Your task to perform on an android device: turn on showing notifications on the lock screen Image 0: 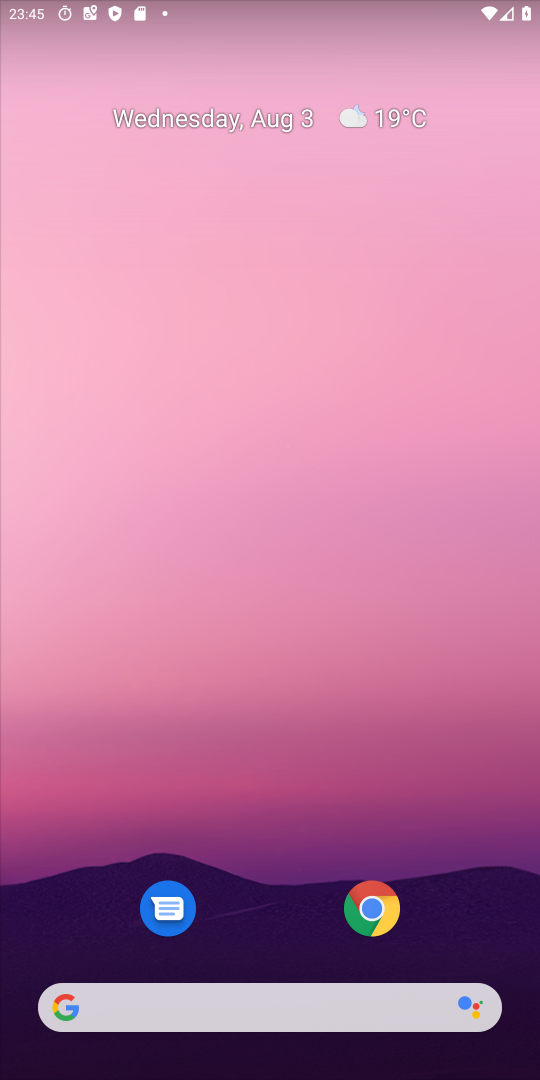
Step 0: press home button
Your task to perform on an android device: turn on showing notifications on the lock screen Image 1: 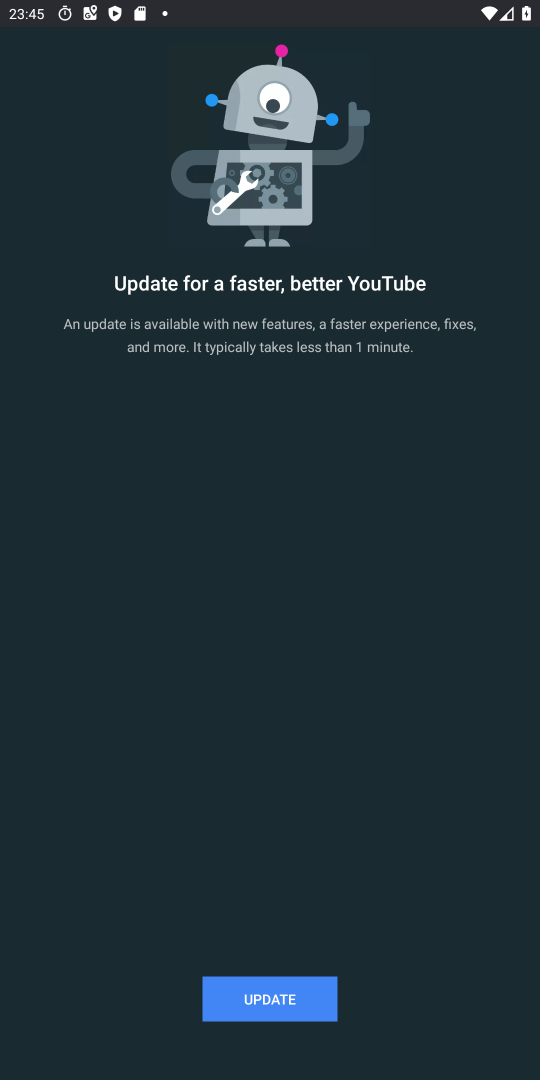
Step 1: drag from (314, 1019) to (429, 314)
Your task to perform on an android device: turn on showing notifications on the lock screen Image 2: 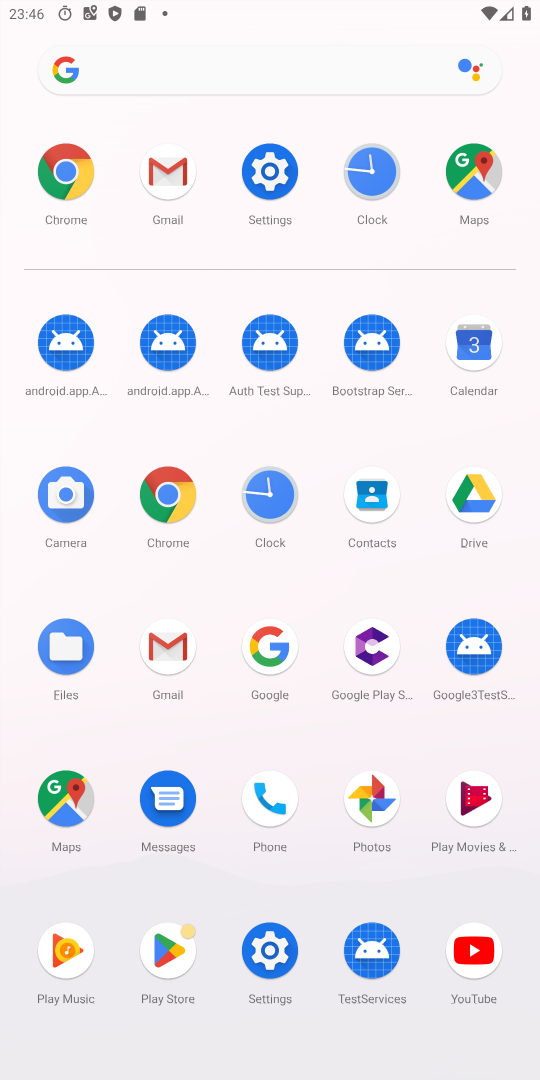
Step 2: click (265, 179)
Your task to perform on an android device: turn on showing notifications on the lock screen Image 3: 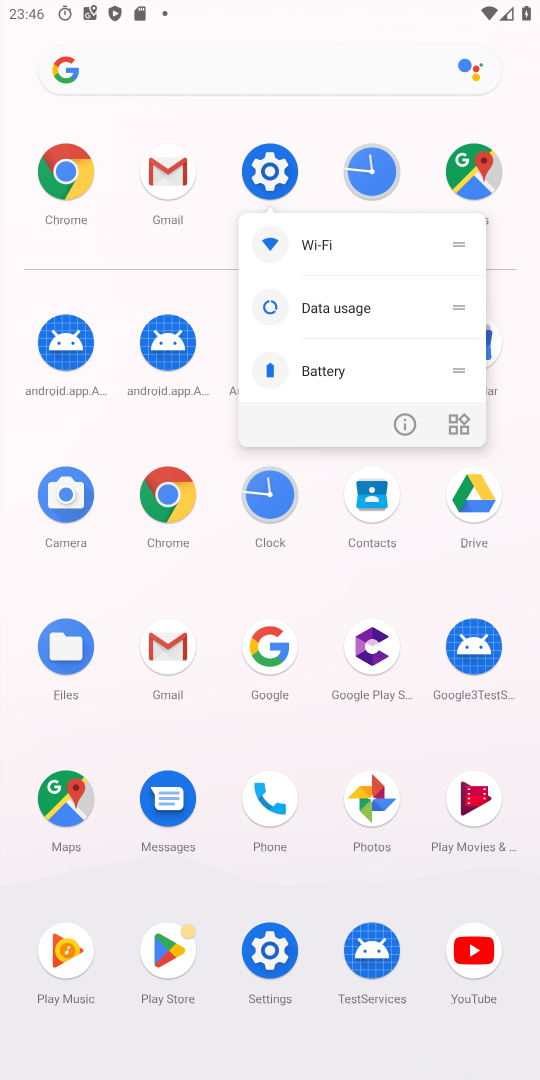
Step 3: click (260, 180)
Your task to perform on an android device: turn on showing notifications on the lock screen Image 4: 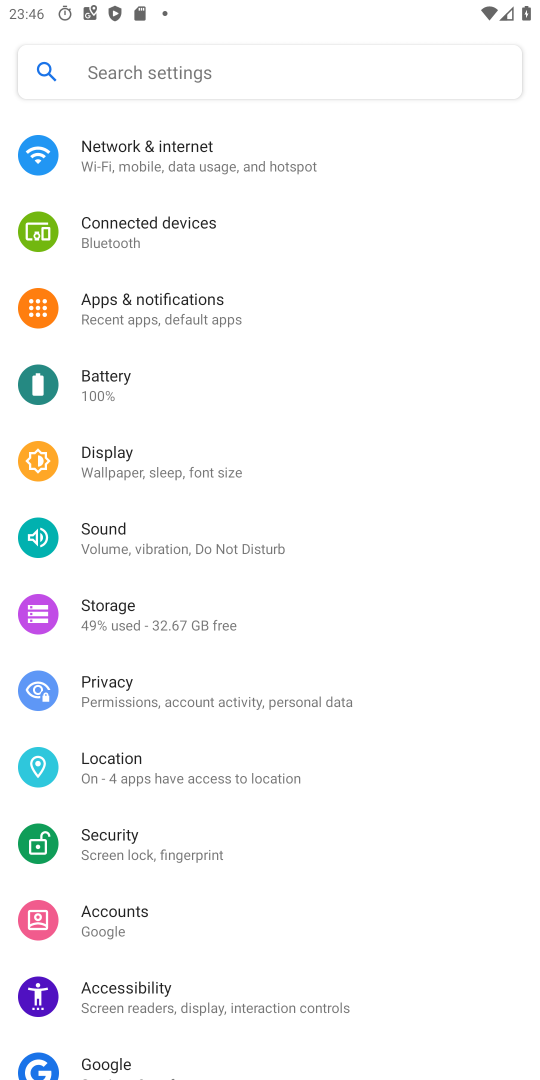
Step 4: click (260, 178)
Your task to perform on an android device: turn on showing notifications on the lock screen Image 5: 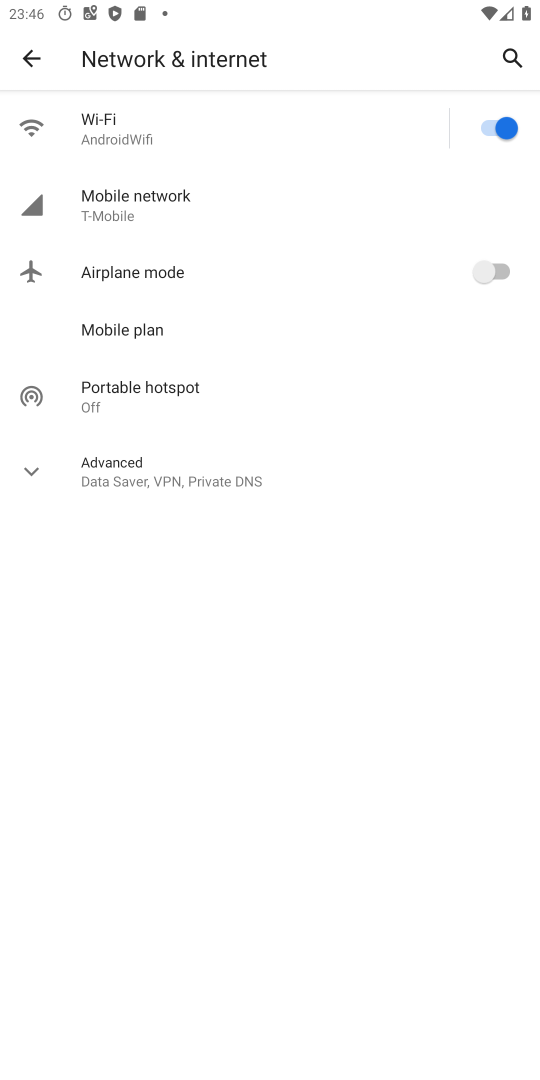
Step 5: click (37, 77)
Your task to perform on an android device: turn on showing notifications on the lock screen Image 6: 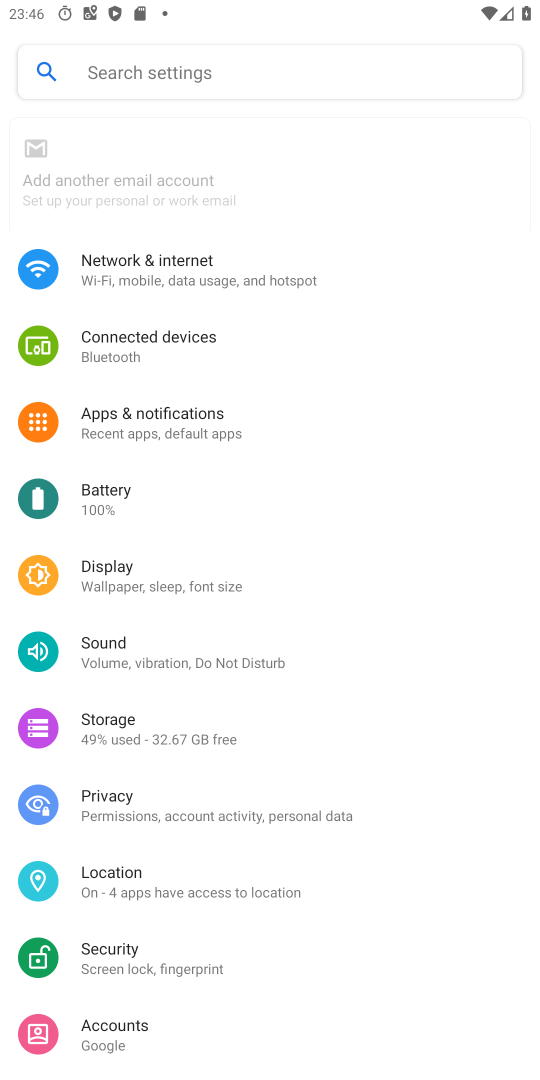
Step 6: click (239, 73)
Your task to perform on an android device: turn on showing notifications on the lock screen Image 7: 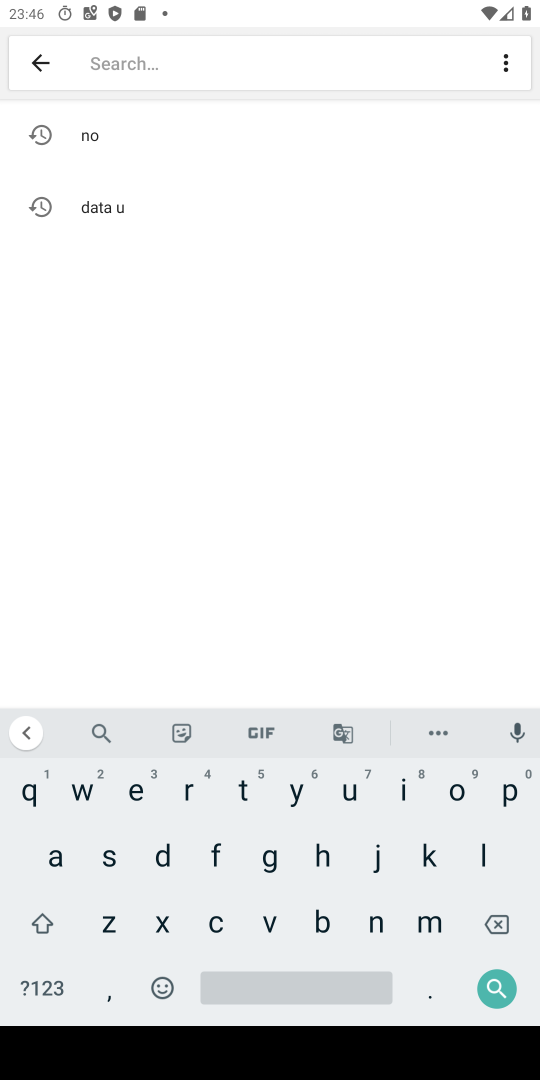
Step 7: click (382, 912)
Your task to perform on an android device: turn on showing notifications on the lock screen Image 8: 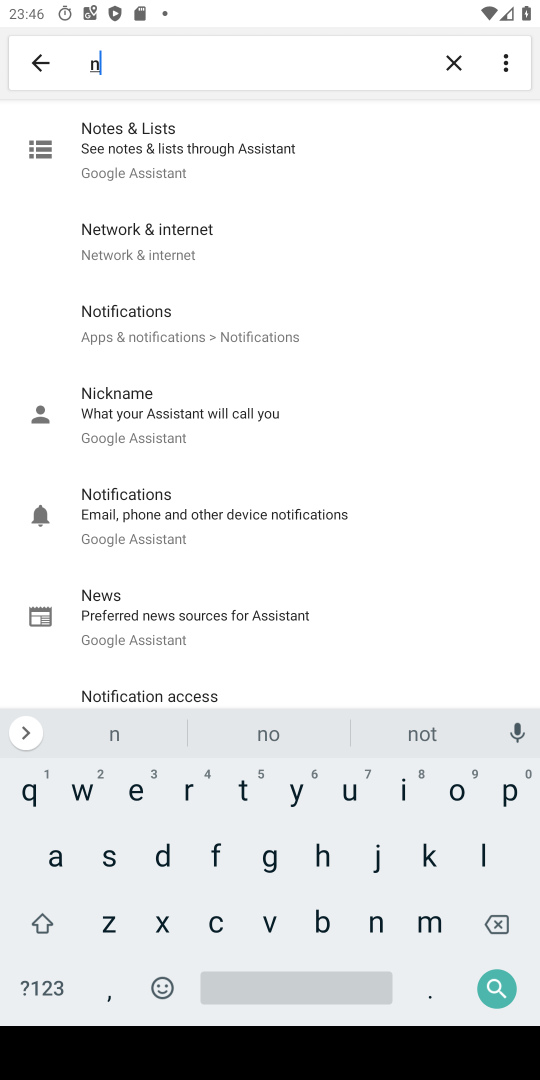
Step 8: click (465, 787)
Your task to perform on an android device: turn on showing notifications on the lock screen Image 9: 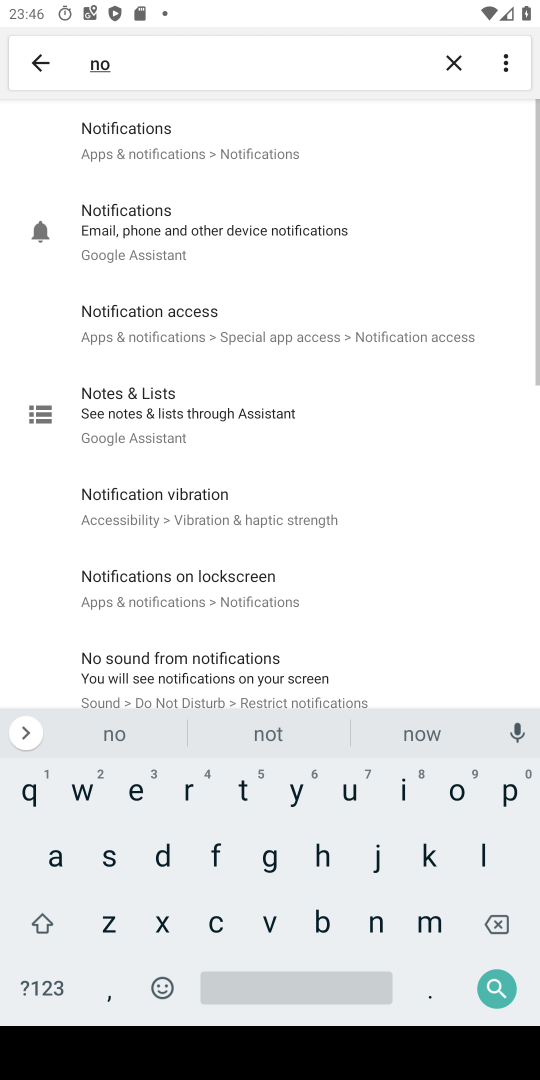
Step 9: click (216, 160)
Your task to perform on an android device: turn on showing notifications on the lock screen Image 10: 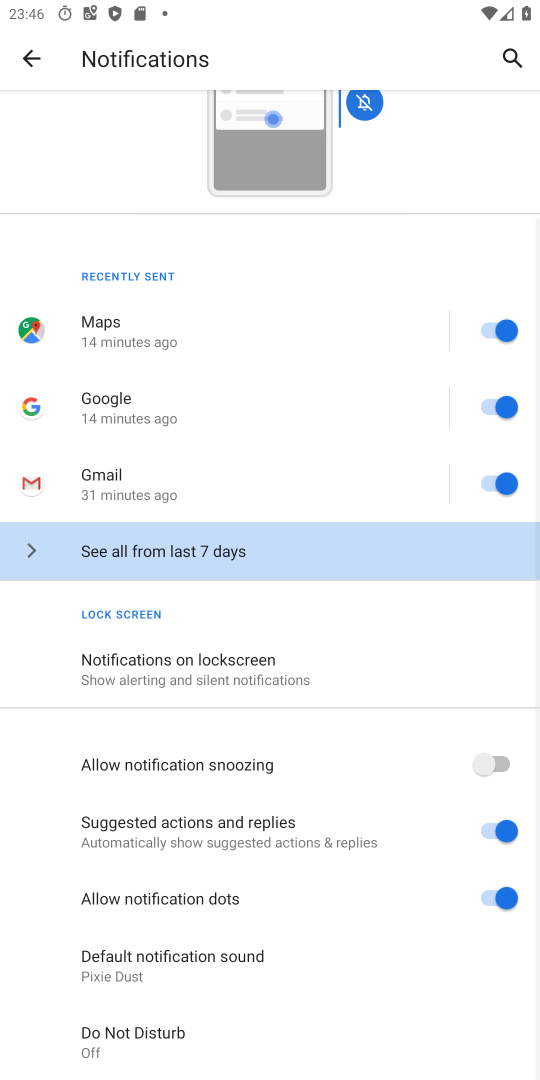
Step 10: click (205, 660)
Your task to perform on an android device: turn on showing notifications on the lock screen Image 11: 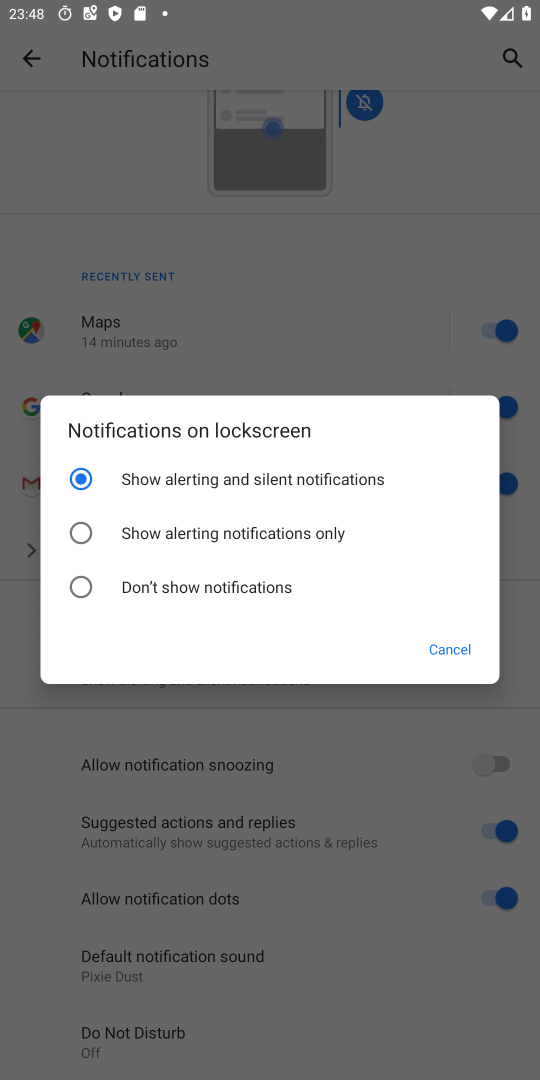
Step 11: task complete